Your task to perform on an android device: turn on priority inbox in the gmail app Image 0: 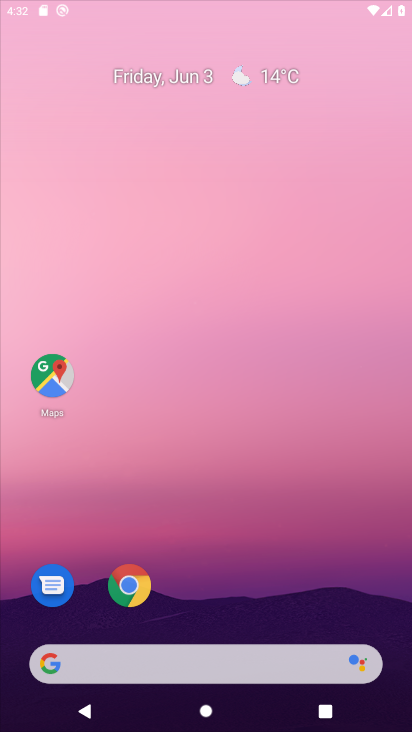
Step 0: drag from (16, 655) to (222, 423)
Your task to perform on an android device: turn on priority inbox in the gmail app Image 1: 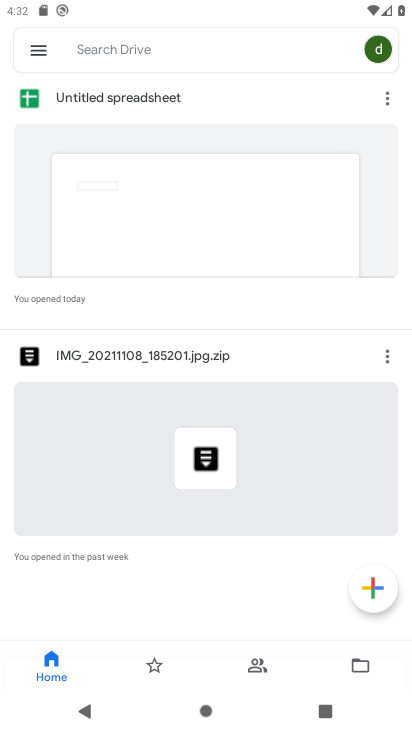
Step 1: press back button
Your task to perform on an android device: turn on priority inbox in the gmail app Image 2: 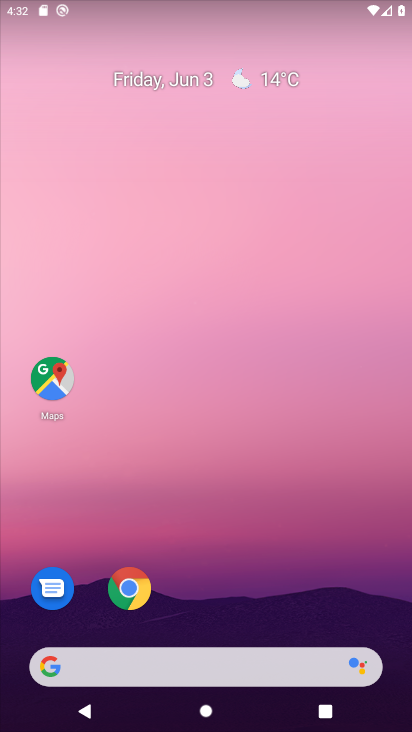
Step 2: drag from (208, 459) to (157, 48)
Your task to perform on an android device: turn on priority inbox in the gmail app Image 3: 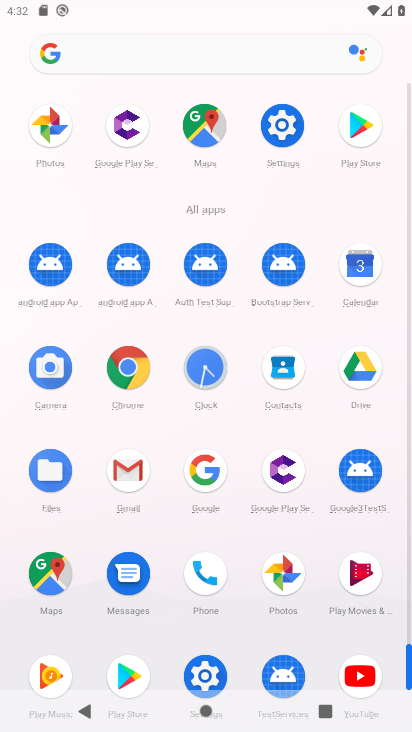
Step 3: click (128, 468)
Your task to perform on an android device: turn on priority inbox in the gmail app Image 4: 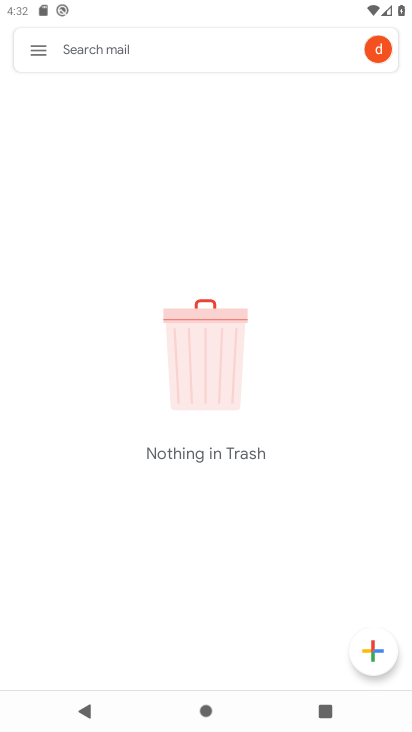
Step 4: click (39, 53)
Your task to perform on an android device: turn on priority inbox in the gmail app Image 5: 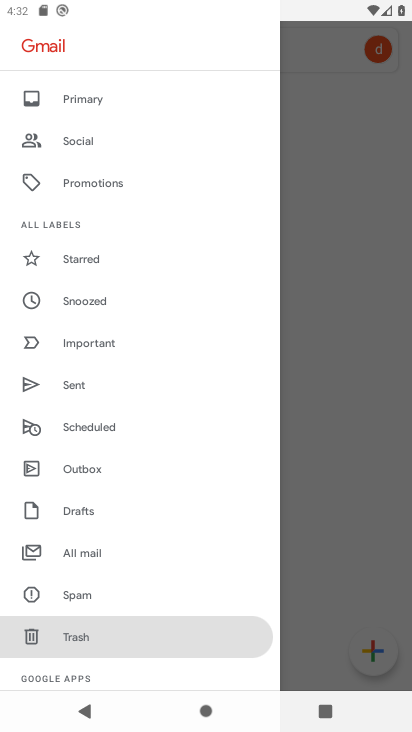
Step 5: drag from (175, 576) to (186, 127)
Your task to perform on an android device: turn on priority inbox in the gmail app Image 6: 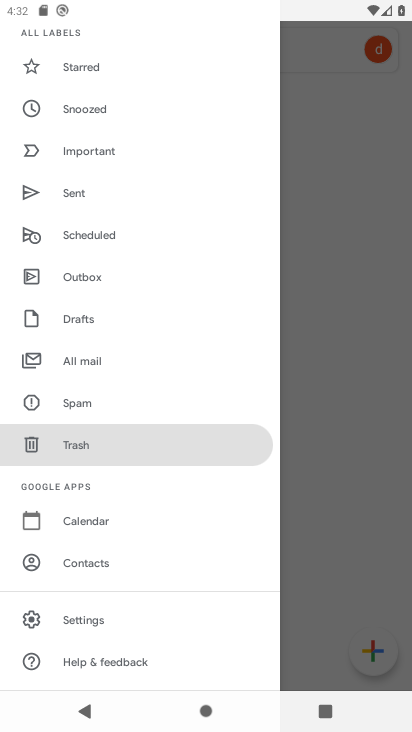
Step 6: click (107, 624)
Your task to perform on an android device: turn on priority inbox in the gmail app Image 7: 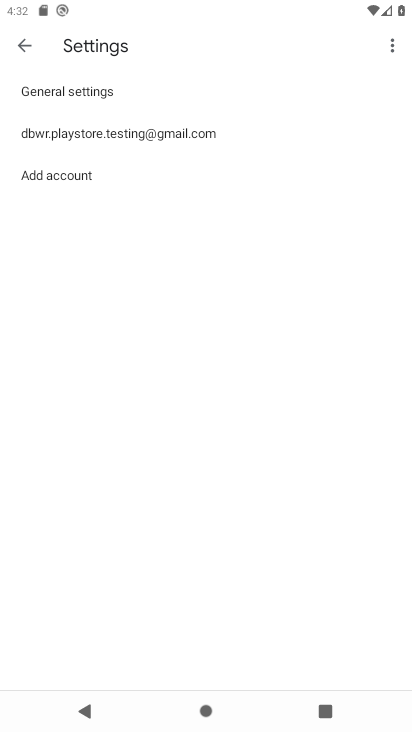
Step 7: click (116, 138)
Your task to perform on an android device: turn on priority inbox in the gmail app Image 8: 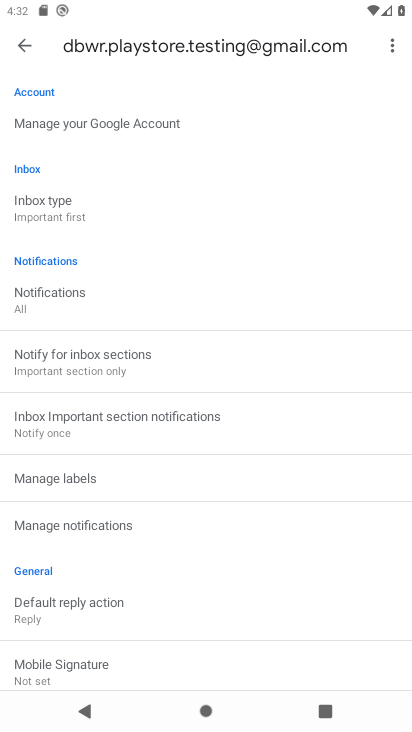
Step 8: click (101, 212)
Your task to perform on an android device: turn on priority inbox in the gmail app Image 9: 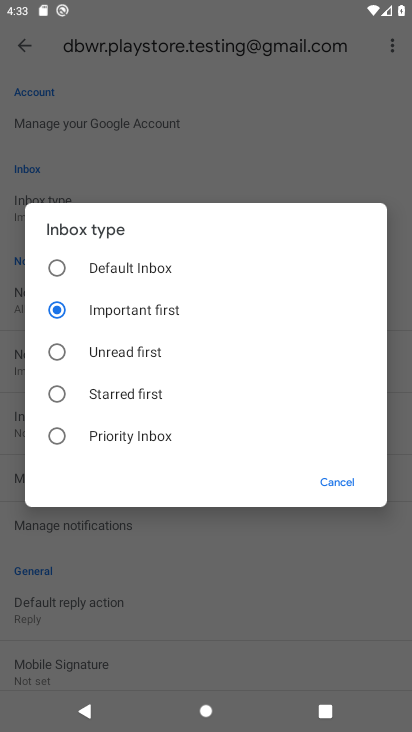
Step 9: click (117, 432)
Your task to perform on an android device: turn on priority inbox in the gmail app Image 10: 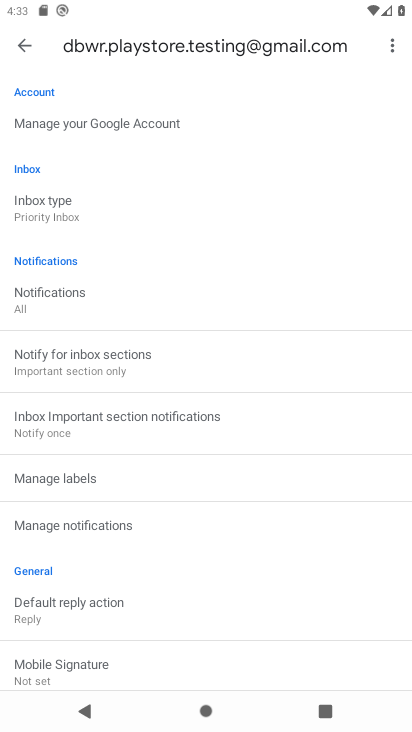
Step 10: task complete